Your task to perform on an android device: Show me popular videos on Youtube Image 0: 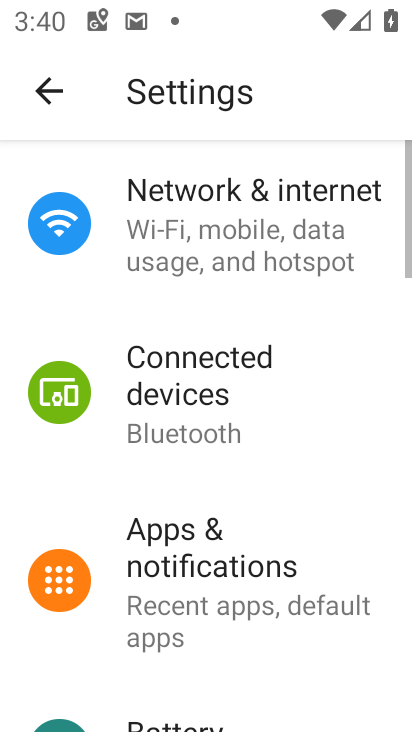
Step 0: press home button
Your task to perform on an android device: Show me popular videos on Youtube Image 1: 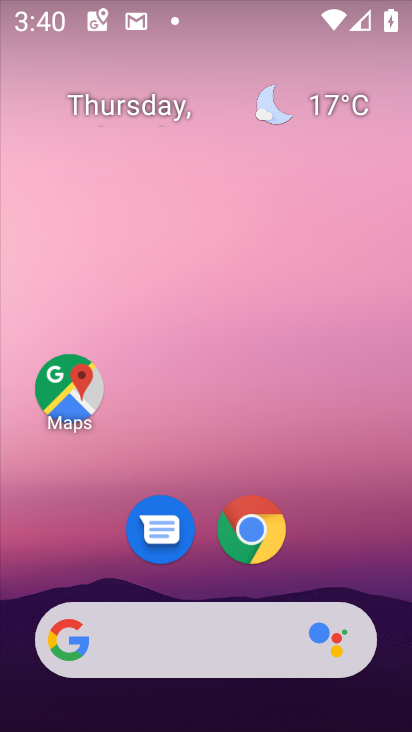
Step 1: drag from (213, 577) to (207, 94)
Your task to perform on an android device: Show me popular videos on Youtube Image 2: 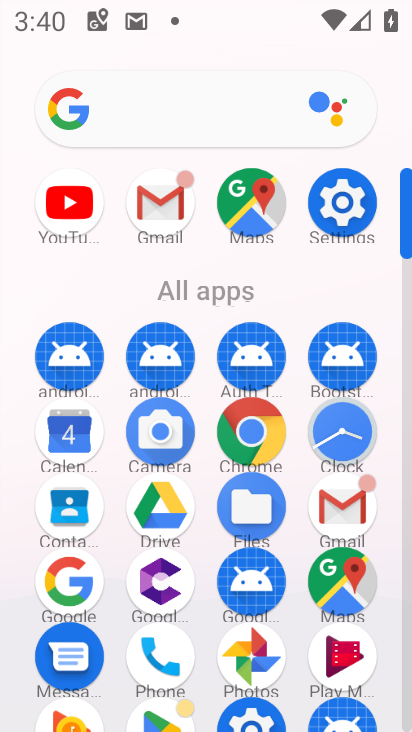
Step 2: click (54, 207)
Your task to perform on an android device: Show me popular videos on Youtube Image 3: 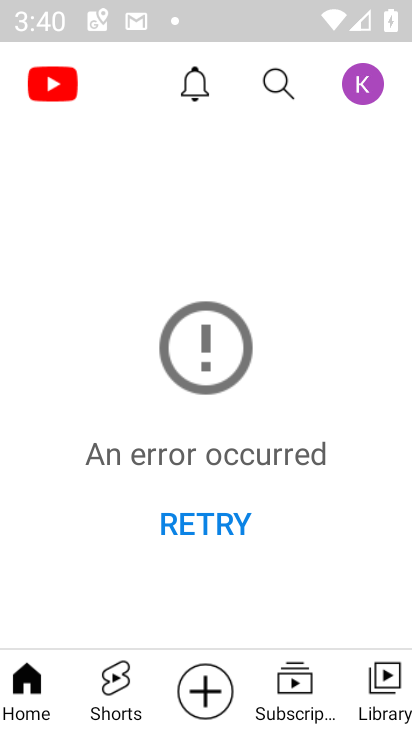
Step 3: click (230, 538)
Your task to perform on an android device: Show me popular videos on Youtube Image 4: 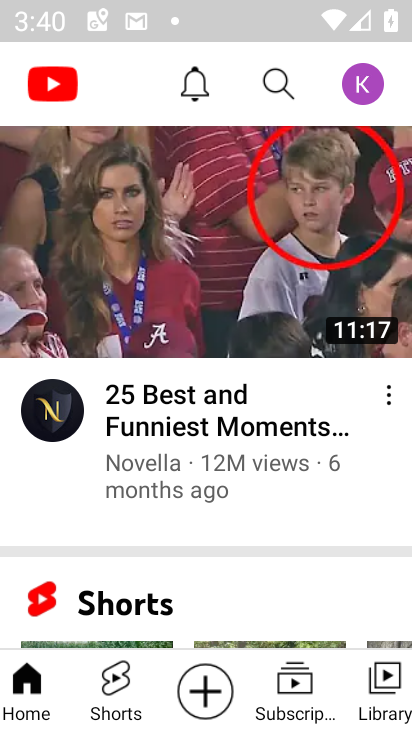
Step 4: task complete